Your task to perform on an android device: Go to CNN.com Image 0: 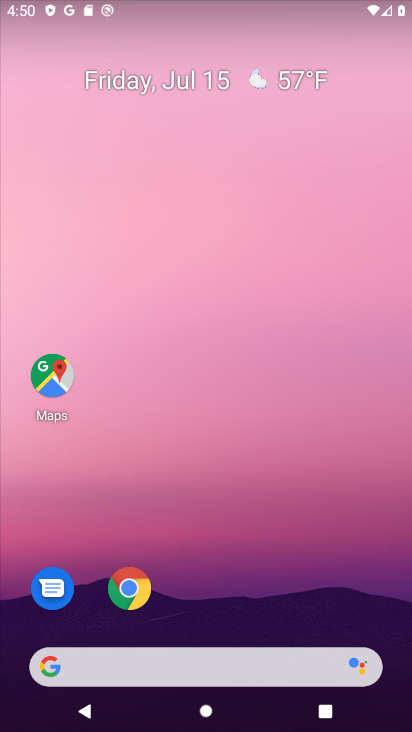
Step 0: drag from (261, 574) to (347, 66)
Your task to perform on an android device: Go to CNN.com Image 1: 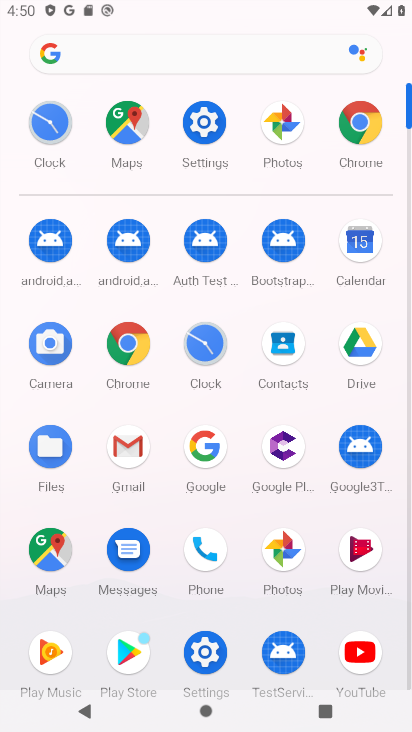
Step 1: click (121, 336)
Your task to perform on an android device: Go to CNN.com Image 2: 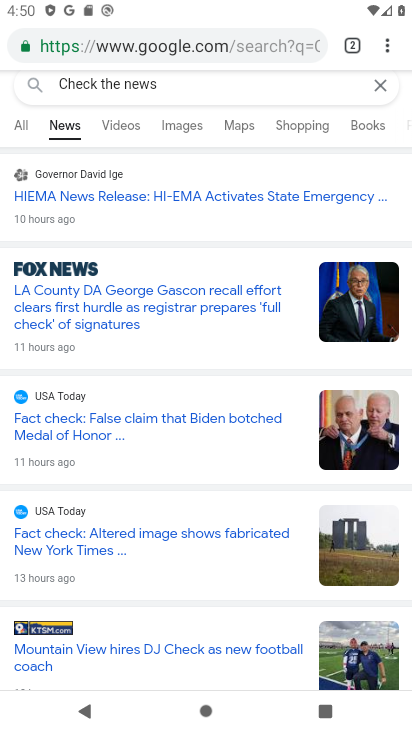
Step 2: click (200, 43)
Your task to perform on an android device: Go to CNN.com Image 3: 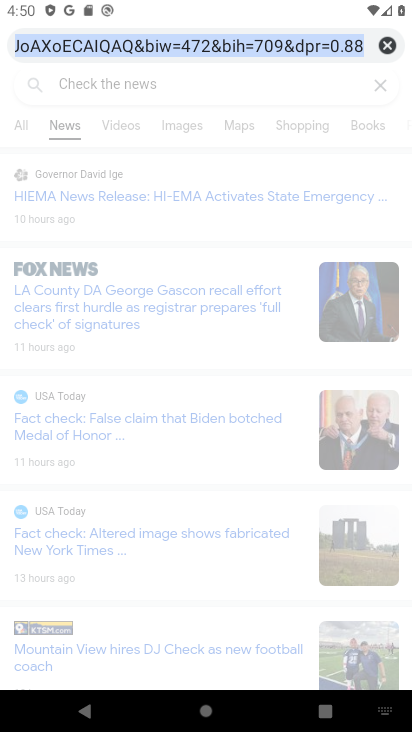
Step 3: click (391, 36)
Your task to perform on an android device: Go to CNN.com Image 4: 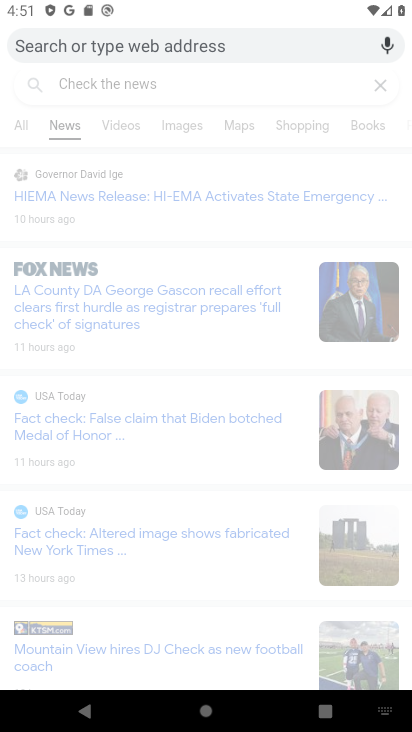
Step 4: type " CNN.com"
Your task to perform on an android device: Go to CNN.com Image 5: 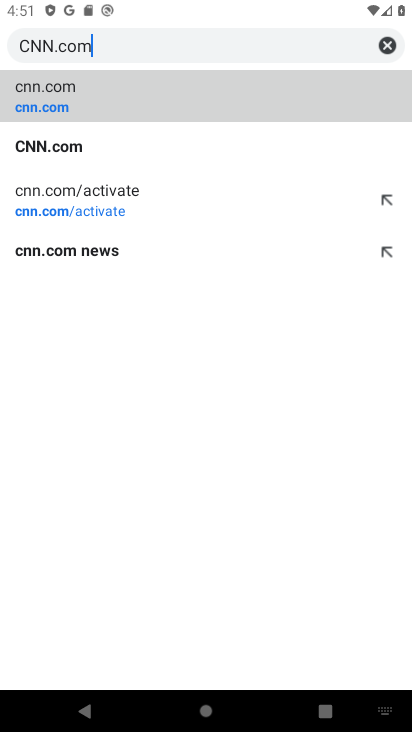
Step 5: click (48, 106)
Your task to perform on an android device: Go to CNN.com Image 6: 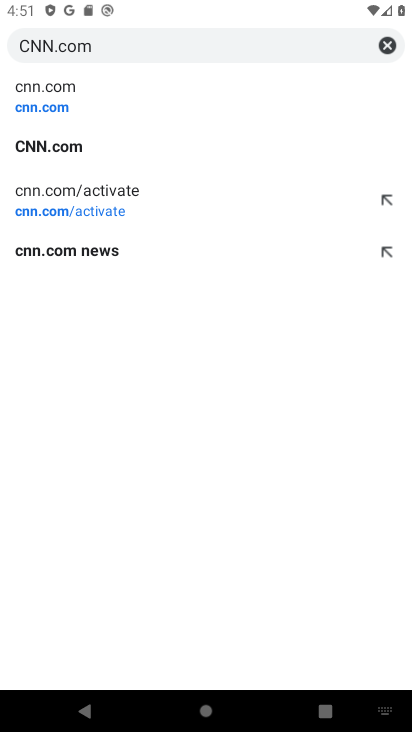
Step 6: click (39, 105)
Your task to perform on an android device: Go to CNN.com Image 7: 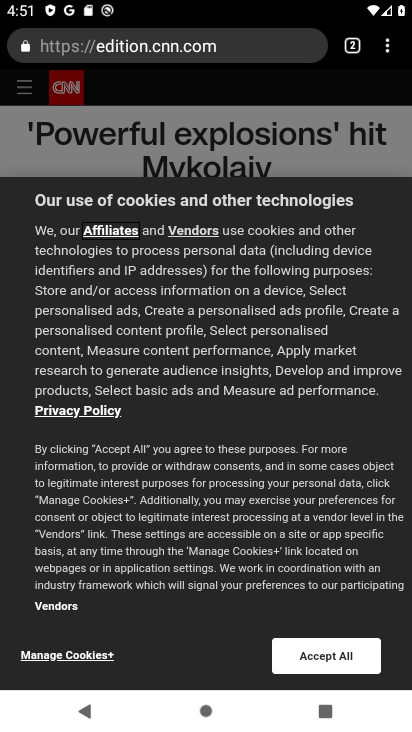
Step 7: task complete